Your task to perform on an android device: Do I have any events tomorrow? Image 0: 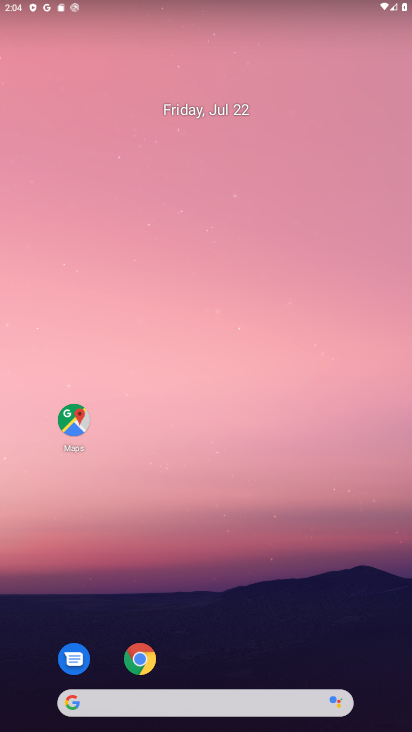
Step 0: drag from (193, 664) to (174, 98)
Your task to perform on an android device: Do I have any events tomorrow? Image 1: 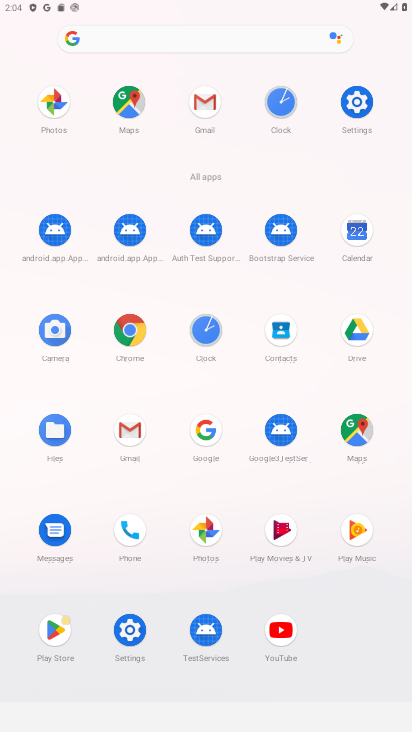
Step 1: click (361, 242)
Your task to perform on an android device: Do I have any events tomorrow? Image 2: 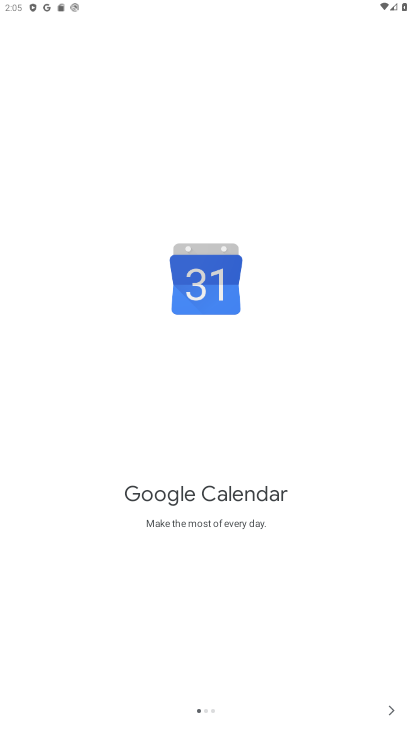
Step 2: click (388, 711)
Your task to perform on an android device: Do I have any events tomorrow? Image 3: 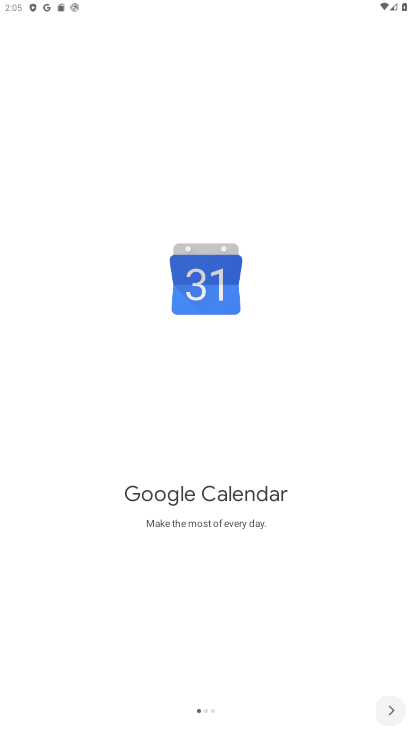
Step 3: click (388, 711)
Your task to perform on an android device: Do I have any events tomorrow? Image 4: 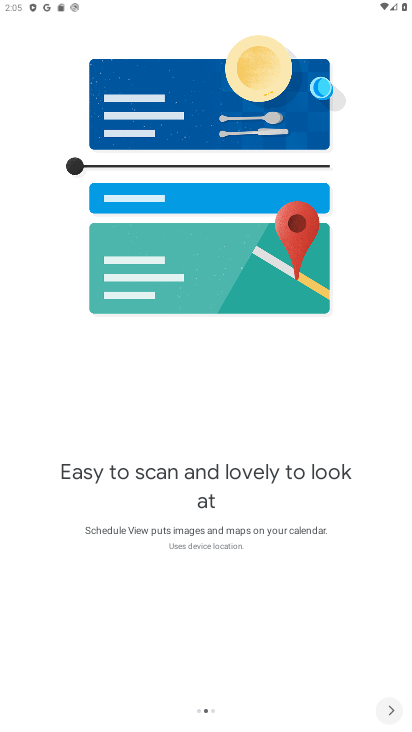
Step 4: click (388, 711)
Your task to perform on an android device: Do I have any events tomorrow? Image 5: 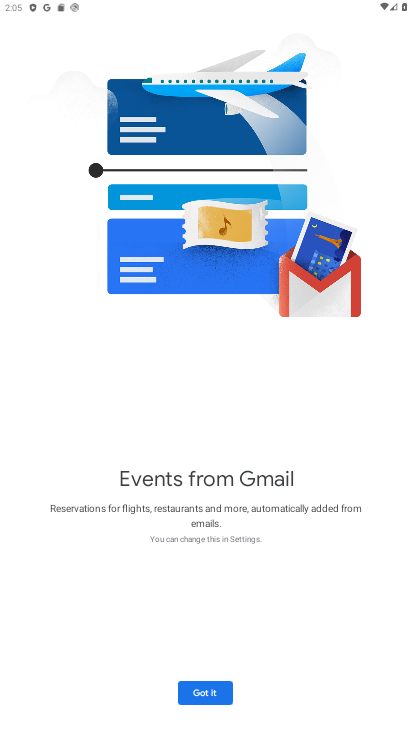
Step 5: click (194, 690)
Your task to perform on an android device: Do I have any events tomorrow? Image 6: 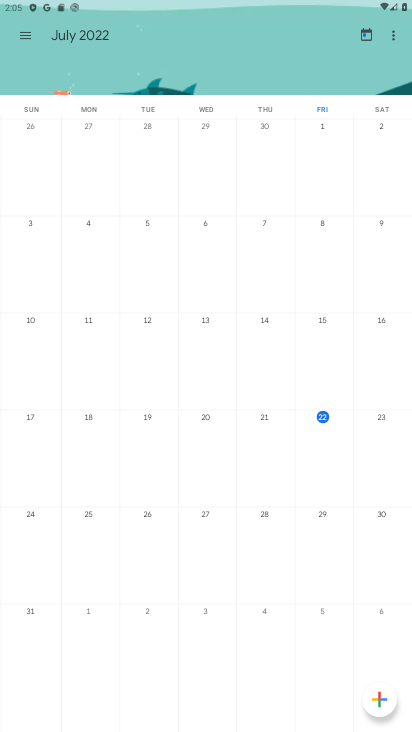
Step 6: click (379, 416)
Your task to perform on an android device: Do I have any events tomorrow? Image 7: 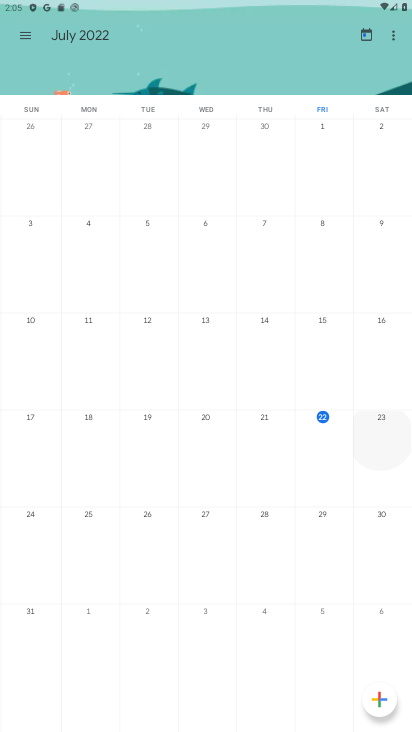
Step 7: click (379, 416)
Your task to perform on an android device: Do I have any events tomorrow? Image 8: 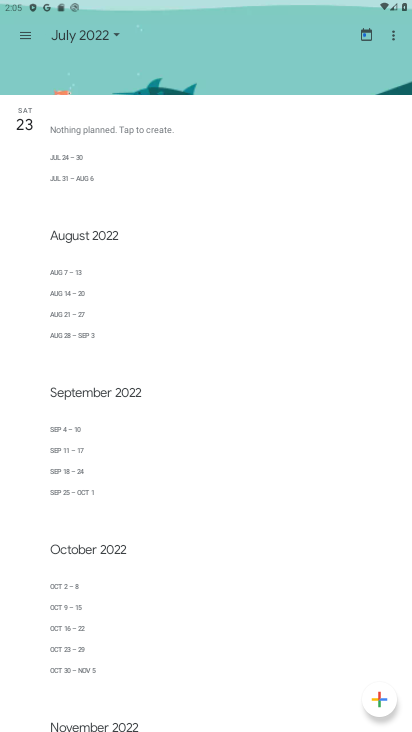
Step 8: task complete